Your task to perform on an android device: Go to Wikipedia Image 0: 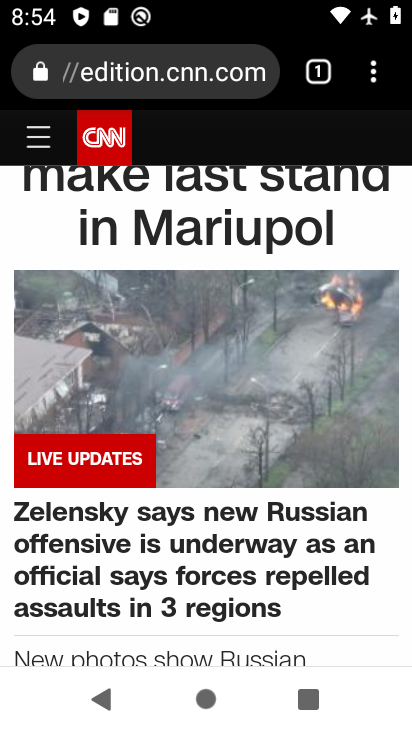
Step 0: click (207, 66)
Your task to perform on an android device: Go to Wikipedia Image 1: 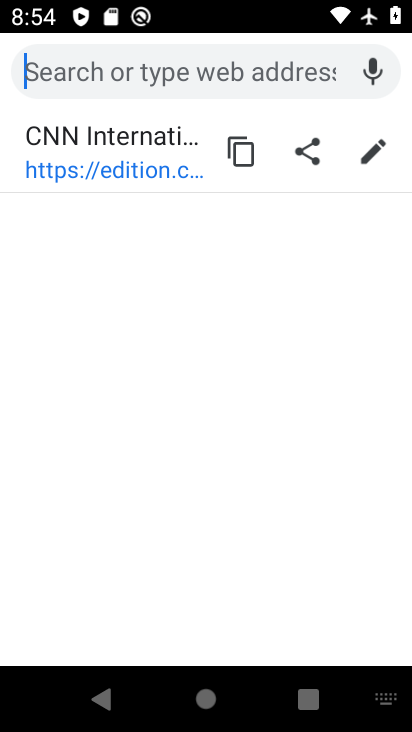
Step 1: type "wikipedia"
Your task to perform on an android device: Go to Wikipedia Image 2: 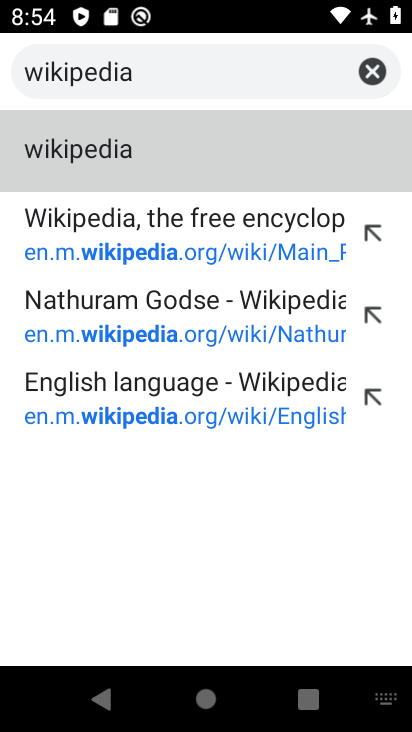
Step 2: click (113, 129)
Your task to perform on an android device: Go to Wikipedia Image 3: 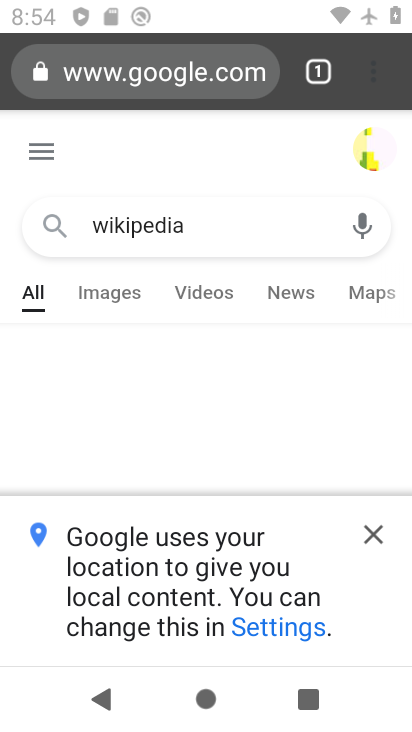
Step 3: click (381, 538)
Your task to perform on an android device: Go to Wikipedia Image 4: 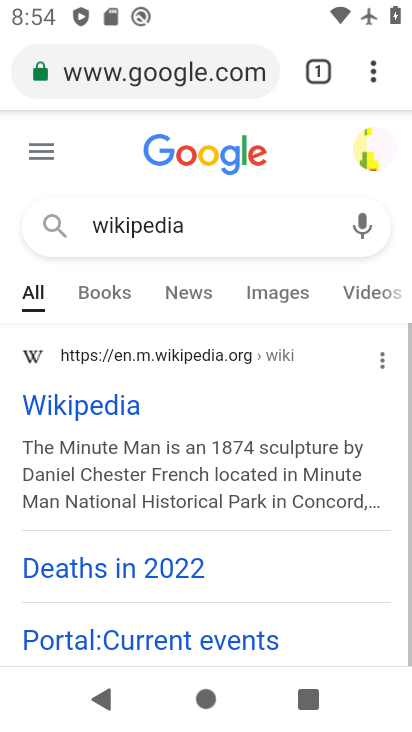
Step 4: click (78, 401)
Your task to perform on an android device: Go to Wikipedia Image 5: 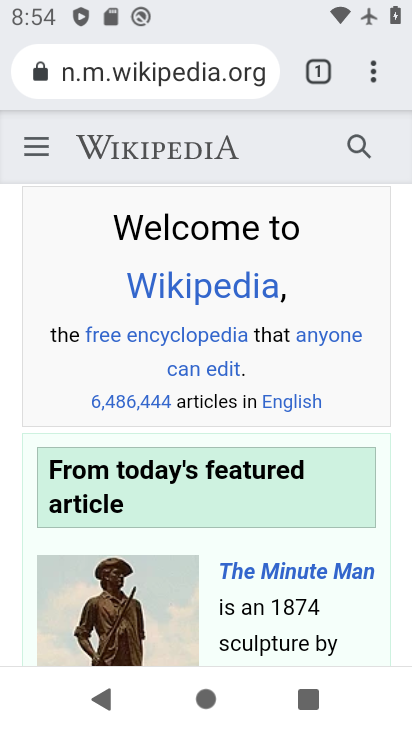
Step 5: task complete